Your task to perform on an android device: open a bookmark in the chrome app Image 0: 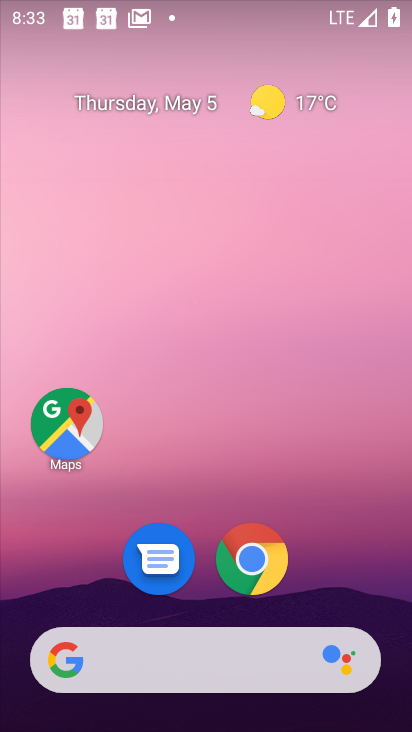
Step 0: click (262, 555)
Your task to perform on an android device: open a bookmark in the chrome app Image 1: 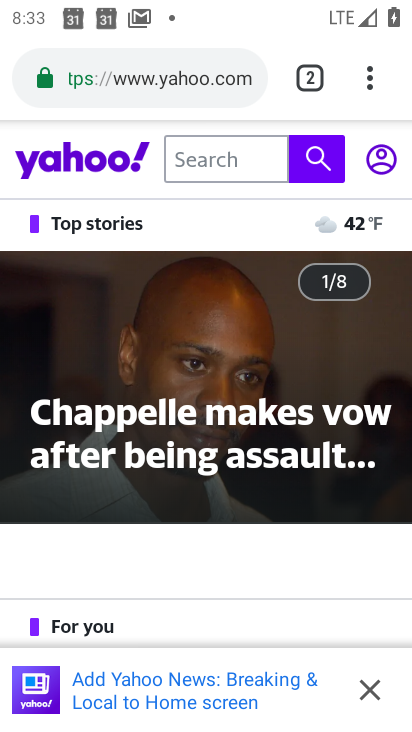
Step 1: click (368, 79)
Your task to perform on an android device: open a bookmark in the chrome app Image 2: 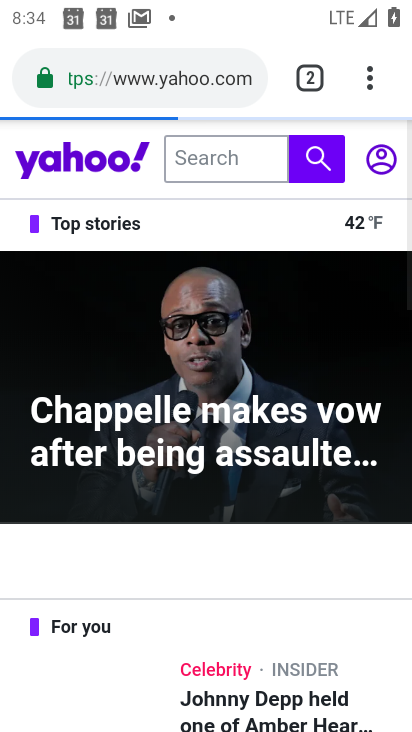
Step 2: click (370, 80)
Your task to perform on an android device: open a bookmark in the chrome app Image 3: 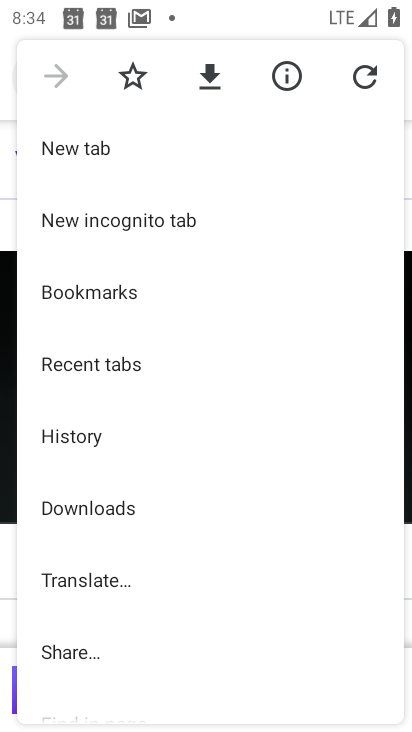
Step 3: click (82, 298)
Your task to perform on an android device: open a bookmark in the chrome app Image 4: 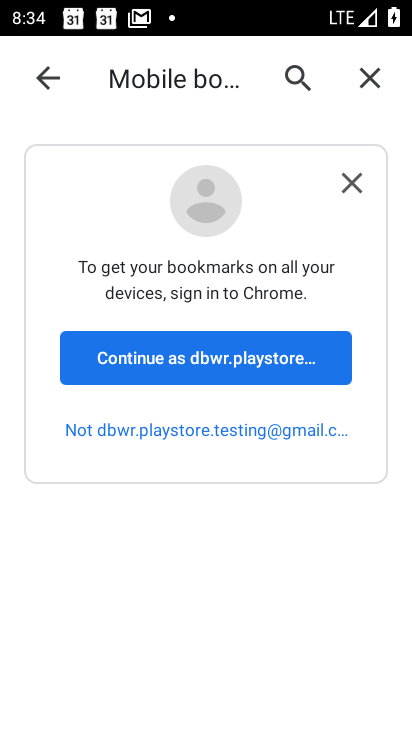
Step 4: click (161, 372)
Your task to perform on an android device: open a bookmark in the chrome app Image 5: 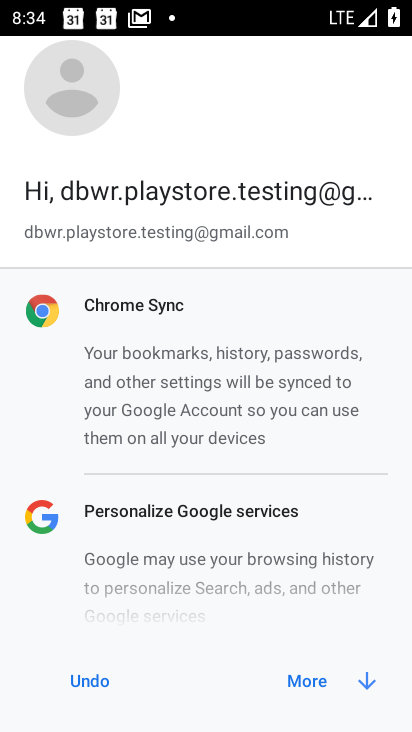
Step 5: click (294, 682)
Your task to perform on an android device: open a bookmark in the chrome app Image 6: 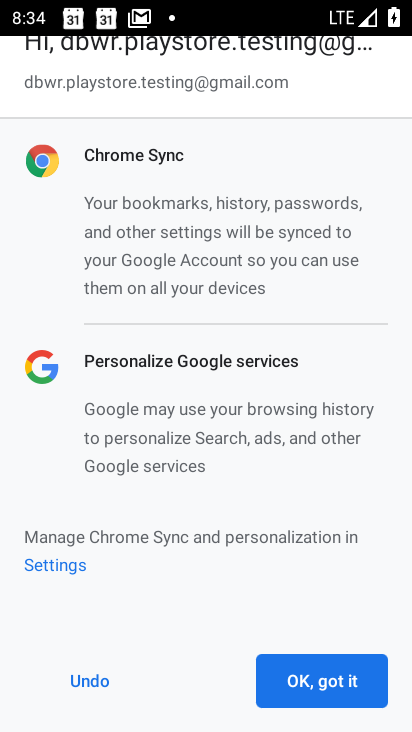
Step 6: click (294, 682)
Your task to perform on an android device: open a bookmark in the chrome app Image 7: 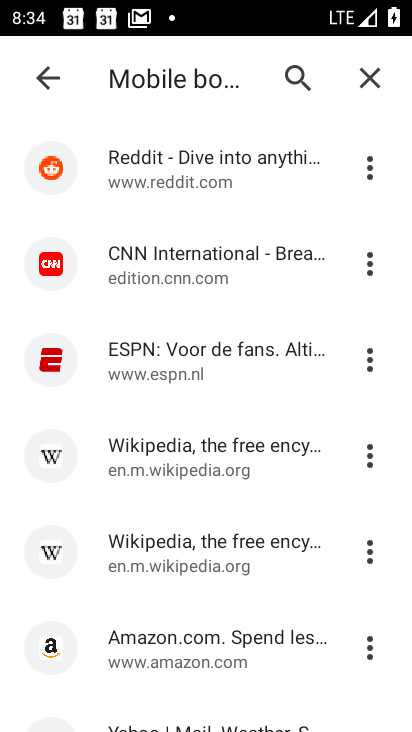
Step 7: click (151, 173)
Your task to perform on an android device: open a bookmark in the chrome app Image 8: 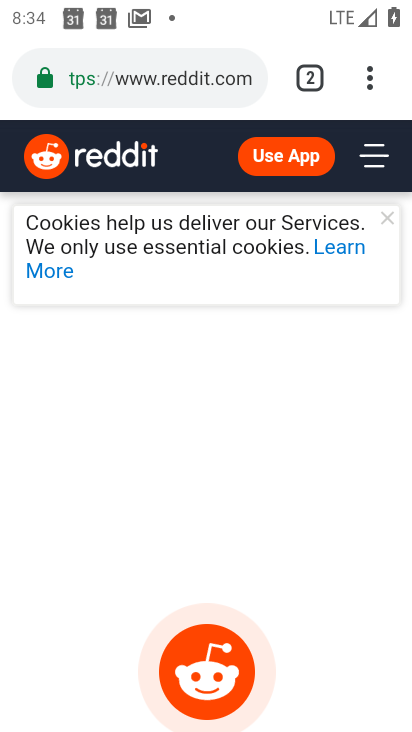
Step 8: task complete